Your task to perform on an android device: move a message to another label in the gmail app Image 0: 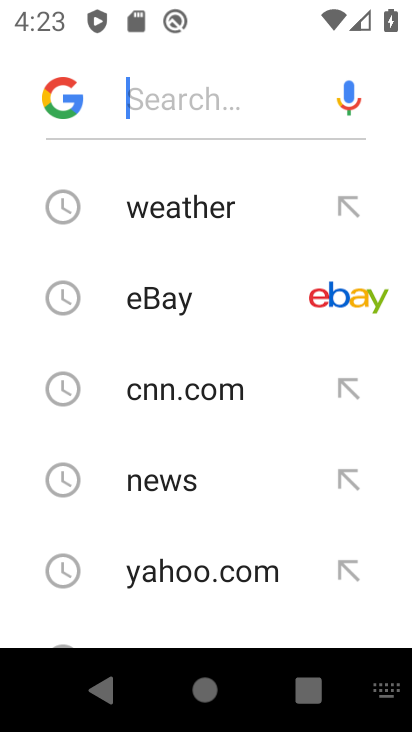
Step 0: press home button
Your task to perform on an android device: move a message to another label in the gmail app Image 1: 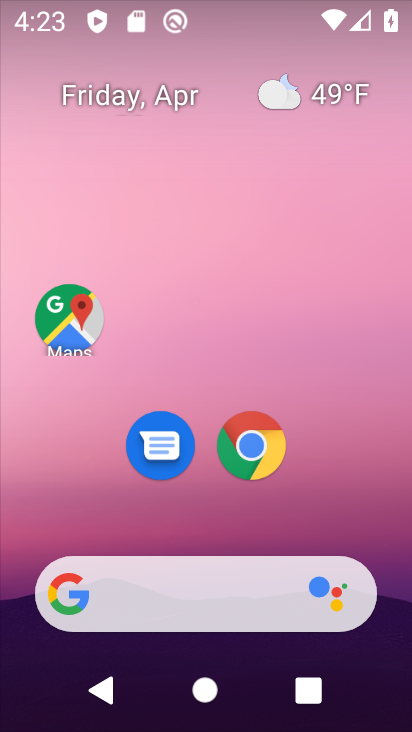
Step 1: drag from (320, 495) to (341, 0)
Your task to perform on an android device: move a message to another label in the gmail app Image 2: 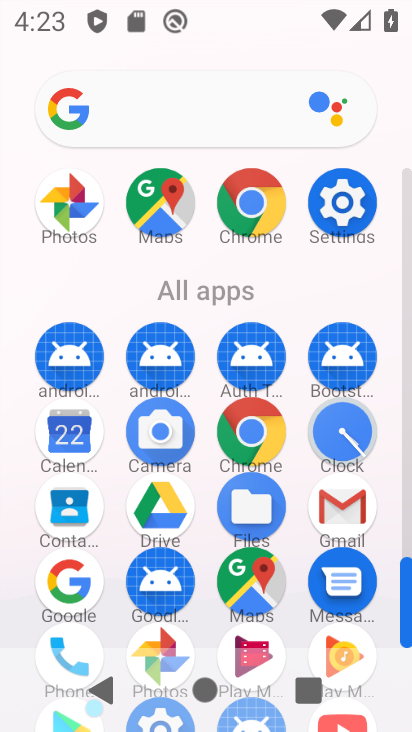
Step 2: click (329, 489)
Your task to perform on an android device: move a message to another label in the gmail app Image 3: 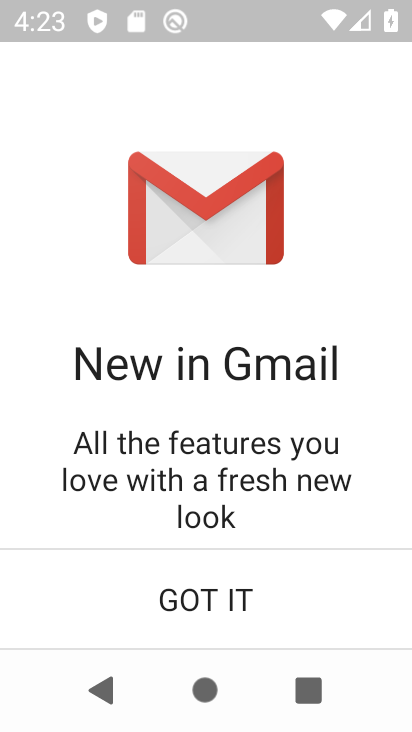
Step 3: click (220, 615)
Your task to perform on an android device: move a message to another label in the gmail app Image 4: 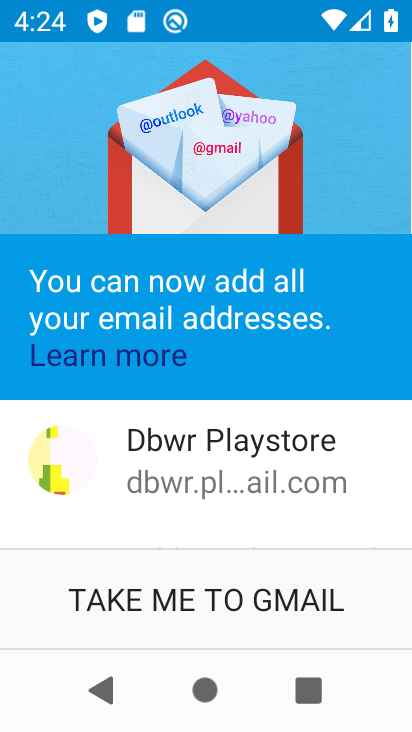
Step 4: click (220, 615)
Your task to perform on an android device: move a message to another label in the gmail app Image 5: 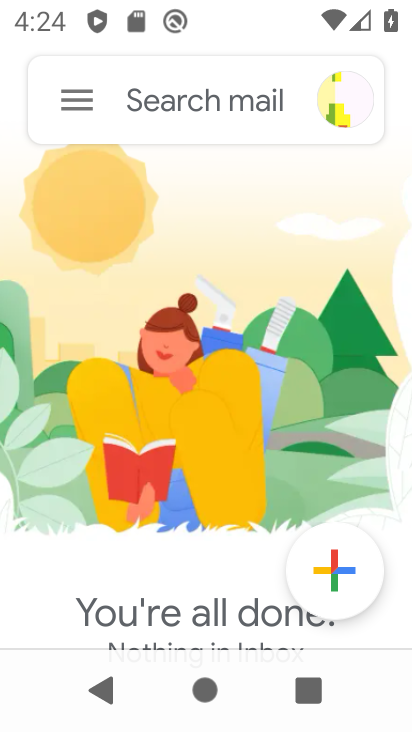
Step 5: click (56, 90)
Your task to perform on an android device: move a message to another label in the gmail app Image 6: 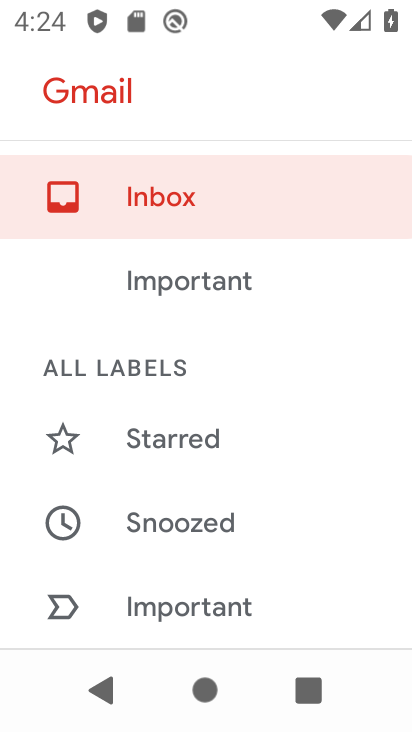
Step 6: drag from (212, 578) to (264, 148)
Your task to perform on an android device: move a message to another label in the gmail app Image 7: 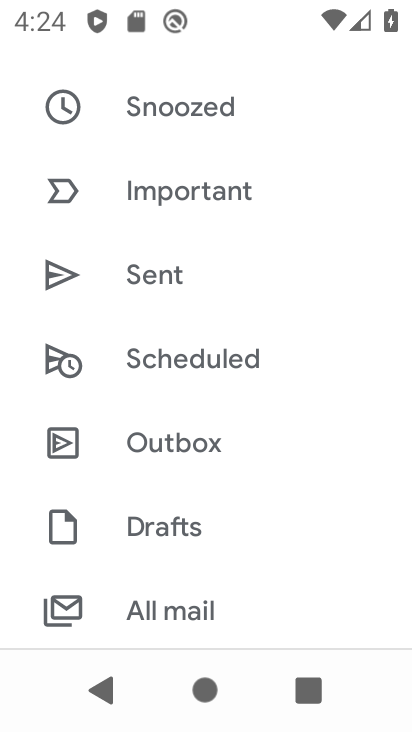
Step 7: click (172, 604)
Your task to perform on an android device: move a message to another label in the gmail app Image 8: 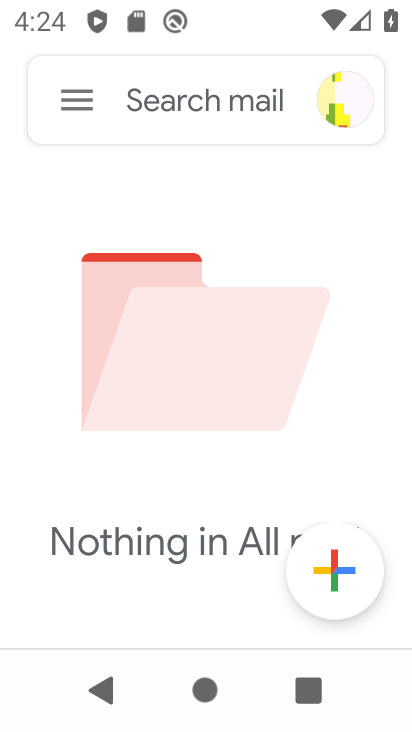
Step 8: task complete